Your task to perform on an android device: Open location settings Image 0: 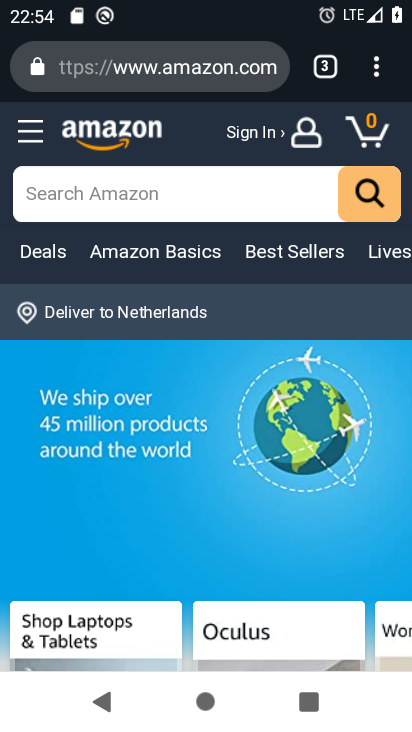
Step 0: press home button
Your task to perform on an android device: Open location settings Image 1: 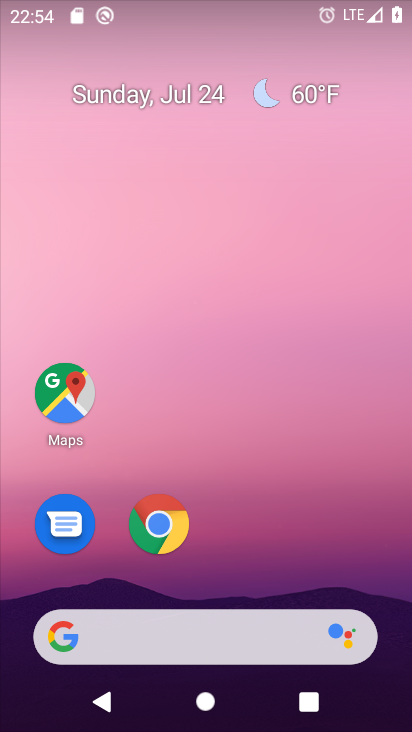
Step 1: drag from (247, 550) to (240, 39)
Your task to perform on an android device: Open location settings Image 2: 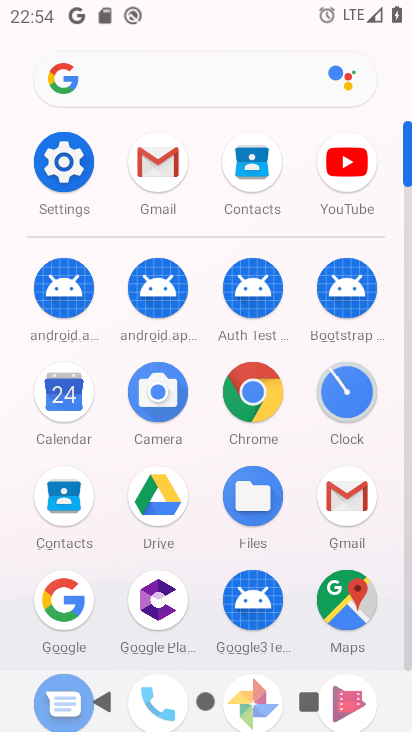
Step 2: click (74, 170)
Your task to perform on an android device: Open location settings Image 3: 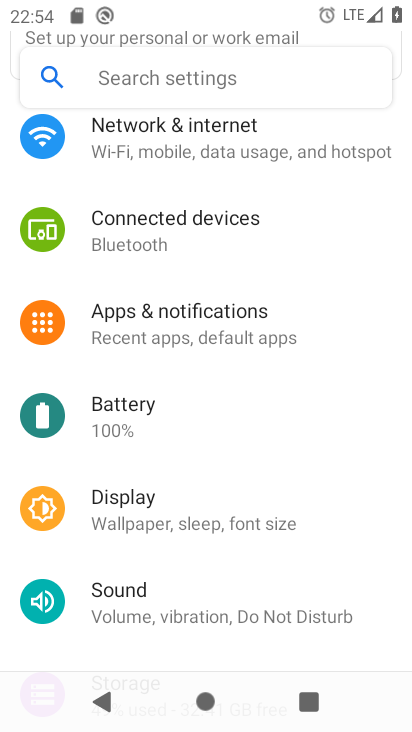
Step 3: drag from (234, 473) to (267, 103)
Your task to perform on an android device: Open location settings Image 4: 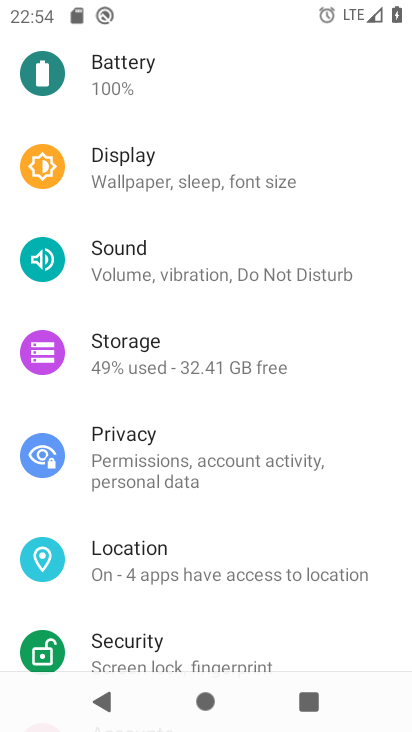
Step 4: click (191, 552)
Your task to perform on an android device: Open location settings Image 5: 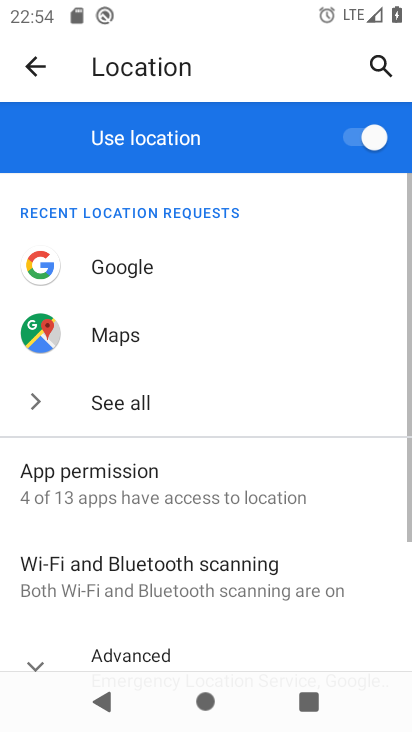
Step 5: task complete